Your task to perform on an android device: Open the web browser Image 0: 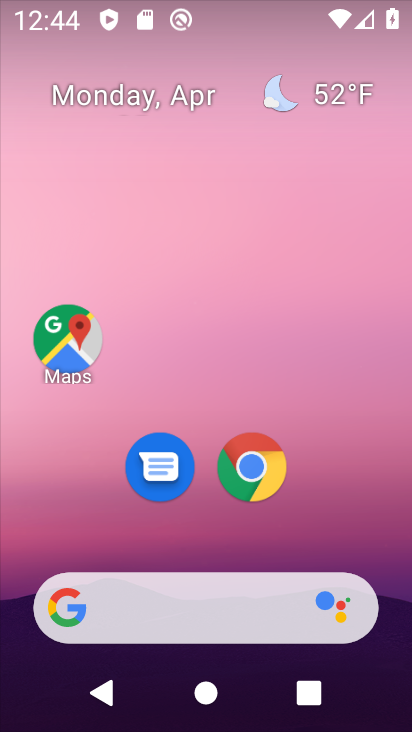
Step 0: click (239, 468)
Your task to perform on an android device: Open the web browser Image 1: 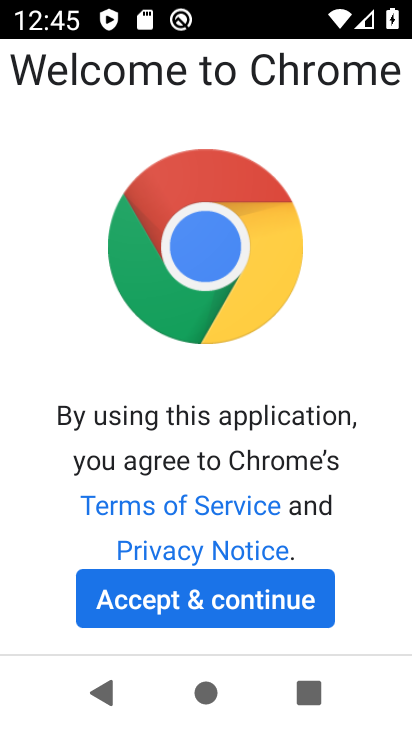
Step 1: click (187, 586)
Your task to perform on an android device: Open the web browser Image 2: 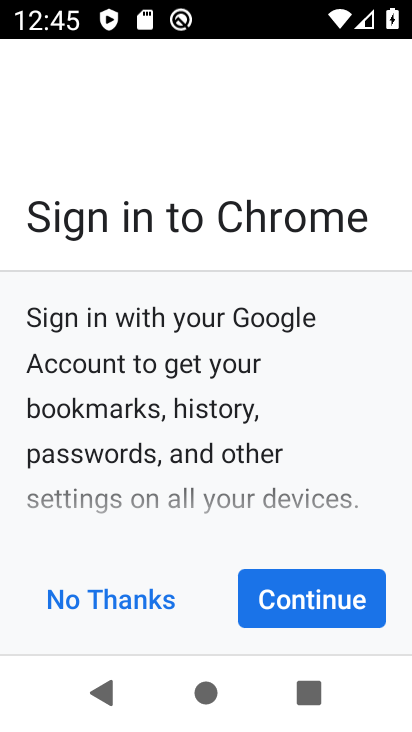
Step 2: click (255, 594)
Your task to perform on an android device: Open the web browser Image 3: 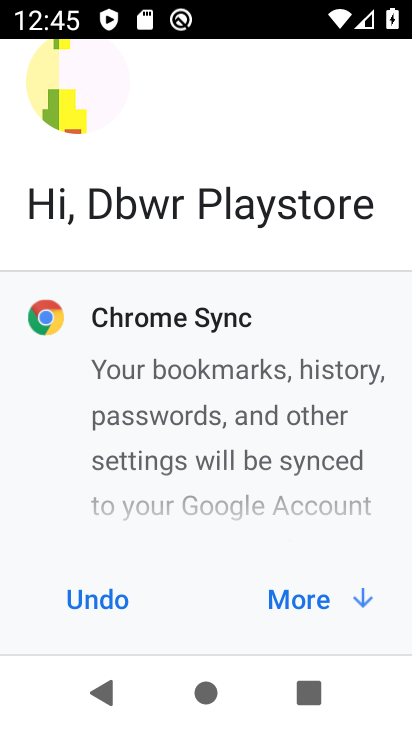
Step 3: click (298, 598)
Your task to perform on an android device: Open the web browser Image 4: 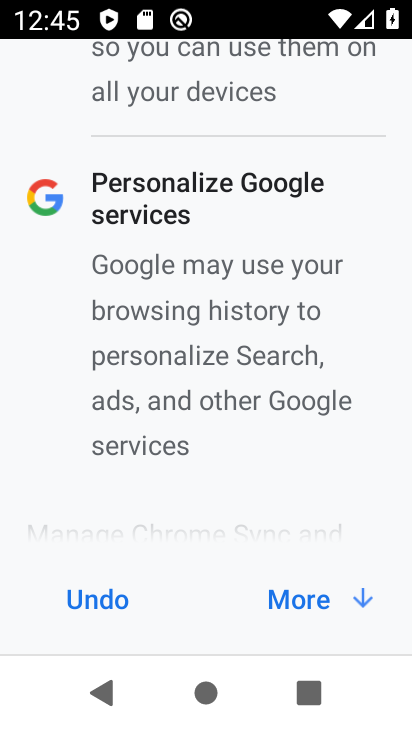
Step 4: click (298, 598)
Your task to perform on an android device: Open the web browser Image 5: 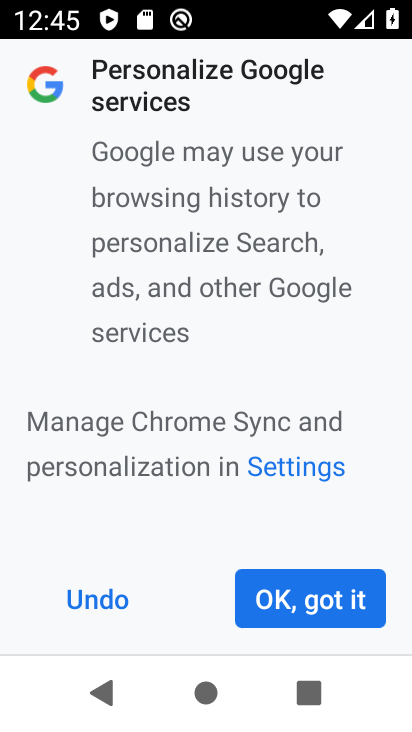
Step 5: click (298, 598)
Your task to perform on an android device: Open the web browser Image 6: 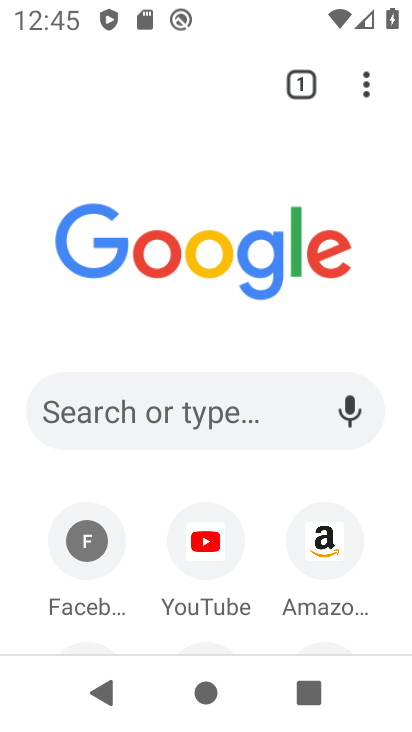
Step 6: task complete